Your task to perform on an android device: Is it going to rain this weekend? Image 0: 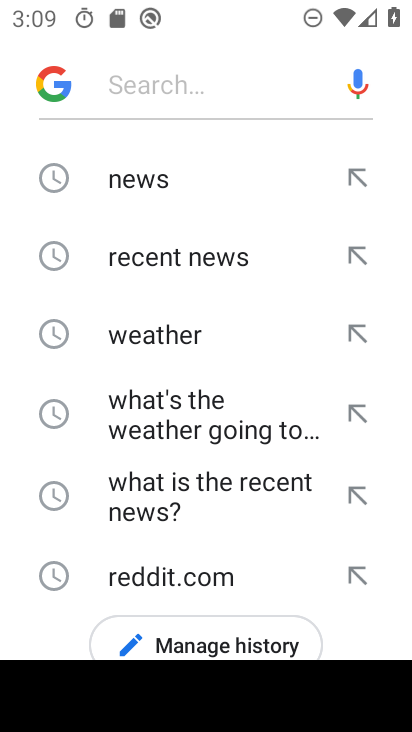
Step 0: click (161, 90)
Your task to perform on an android device: Is it going to rain this weekend? Image 1: 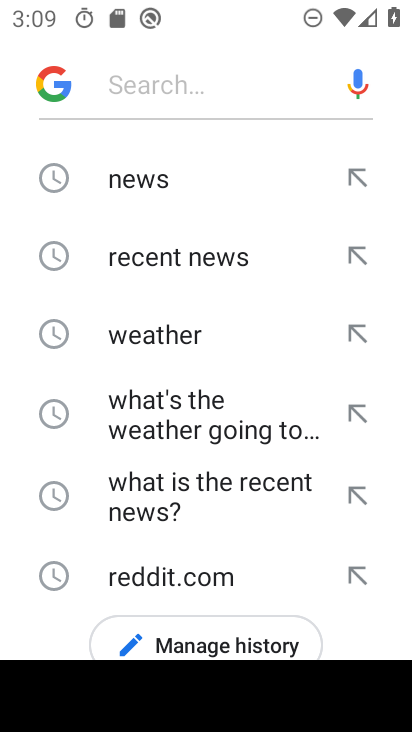
Step 1: click (179, 87)
Your task to perform on an android device: Is it going to rain this weekend? Image 2: 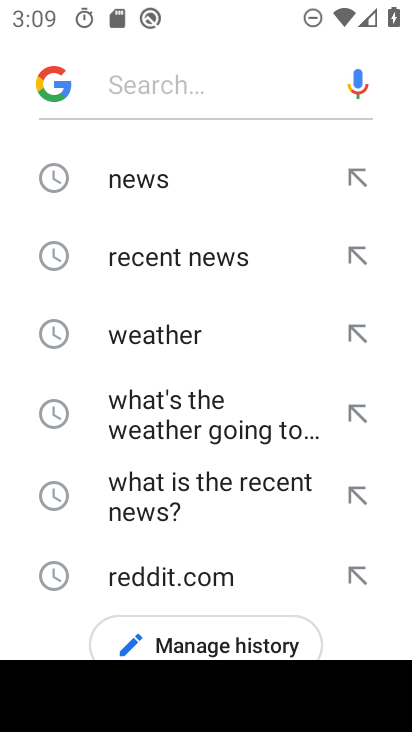
Step 2: type "rain weekend"
Your task to perform on an android device: Is it going to rain this weekend? Image 3: 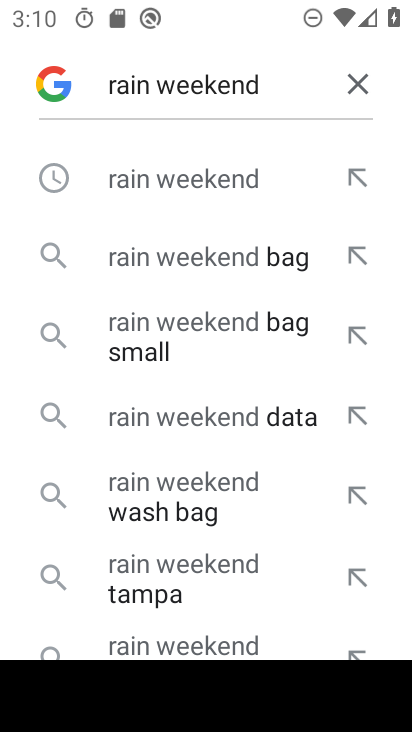
Step 3: drag from (190, 587) to (282, 230)
Your task to perform on an android device: Is it going to rain this weekend? Image 4: 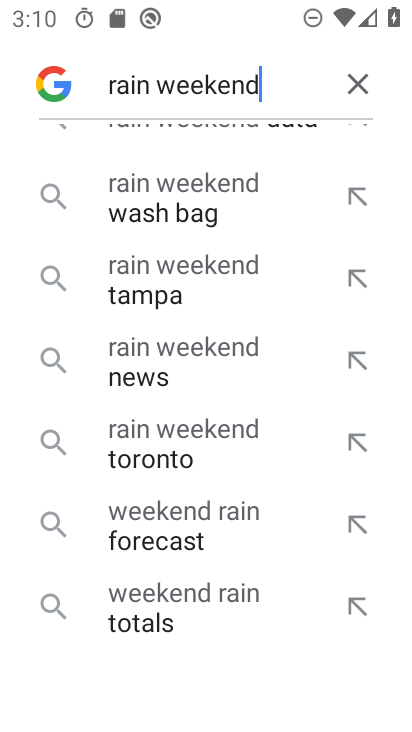
Step 4: drag from (252, 210) to (215, 711)
Your task to perform on an android device: Is it going to rain this weekend? Image 5: 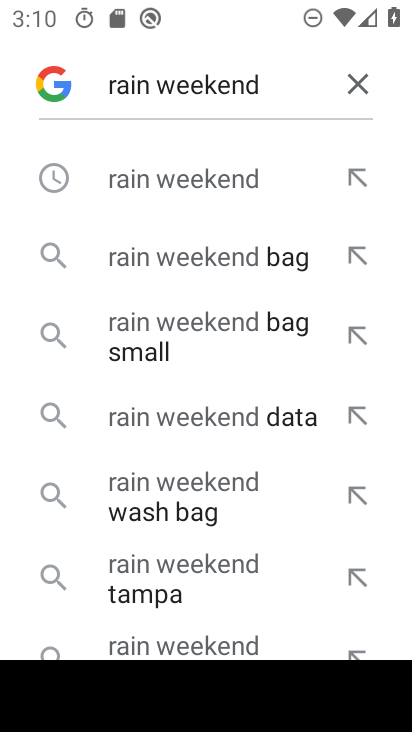
Step 5: click (222, 167)
Your task to perform on an android device: Is it going to rain this weekend? Image 6: 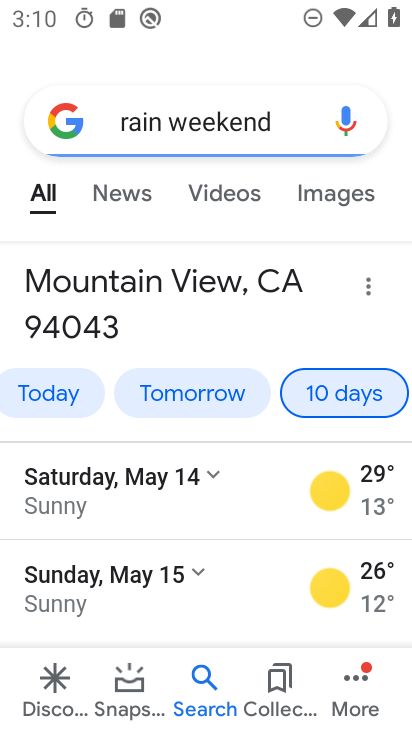
Step 6: task complete